Your task to perform on an android device: see sites visited before in the chrome app Image 0: 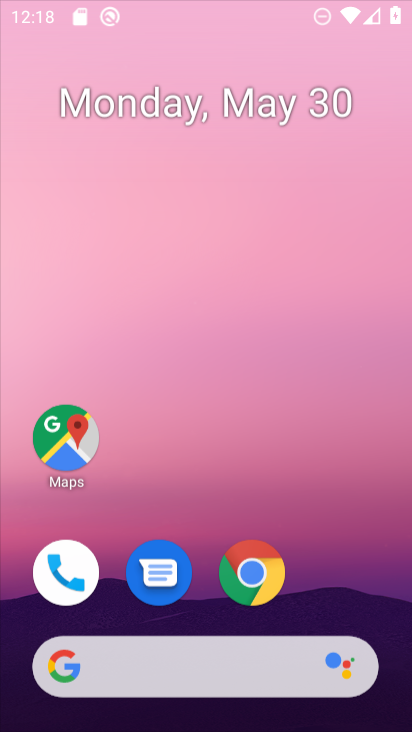
Step 0: press home button
Your task to perform on an android device: see sites visited before in the chrome app Image 1: 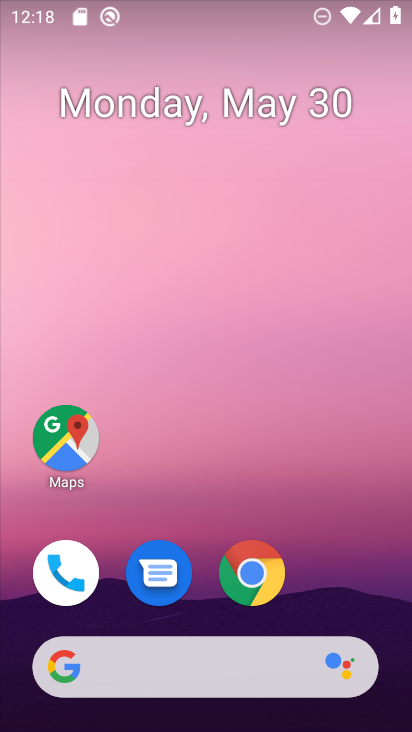
Step 1: click (248, 580)
Your task to perform on an android device: see sites visited before in the chrome app Image 2: 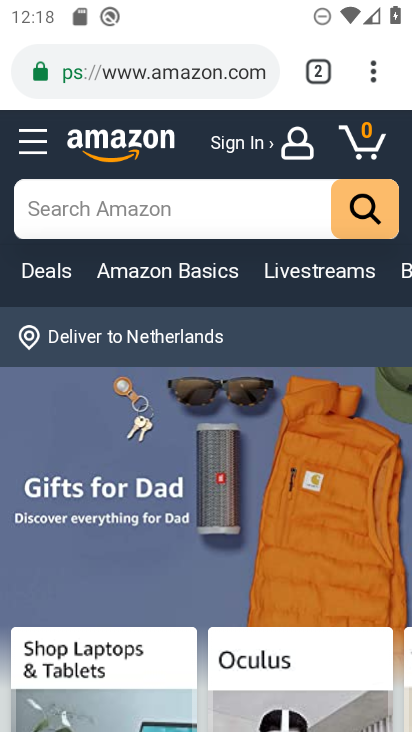
Step 2: task complete